Your task to perform on an android device: toggle pop-ups in chrome Image 0: 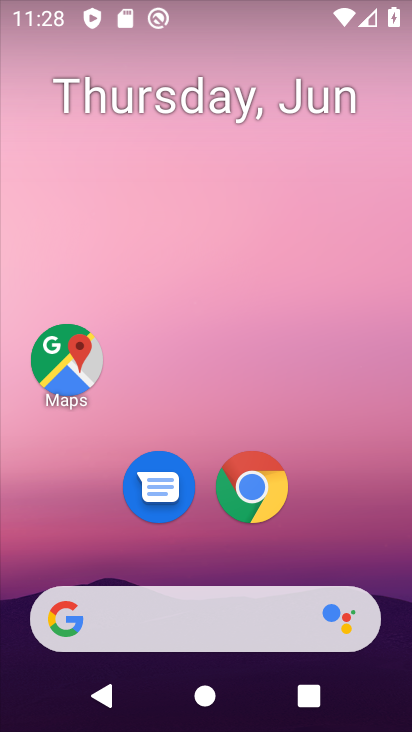
Step 0: drag from (87, 540) to (230, 37)
Your task to perform on an android device: toggle pop-ups in chrome Image 1: 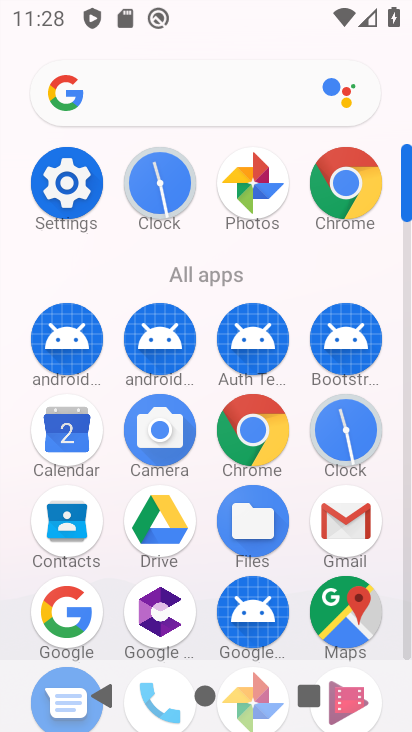
Step 1: drag from (207, 596) to (272, 274)
Your task to perform on an android device: toggle pop-ups in chrome Image 2: 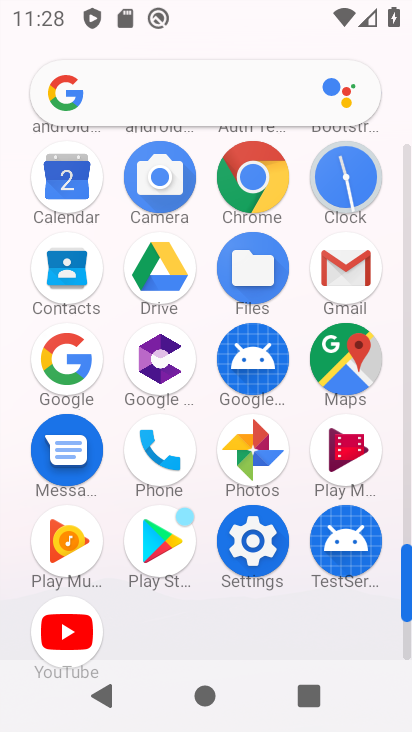
Step 2: click (256, 164)
Your task to perform on an android device: toggle pop-ups in chrome Image 3: 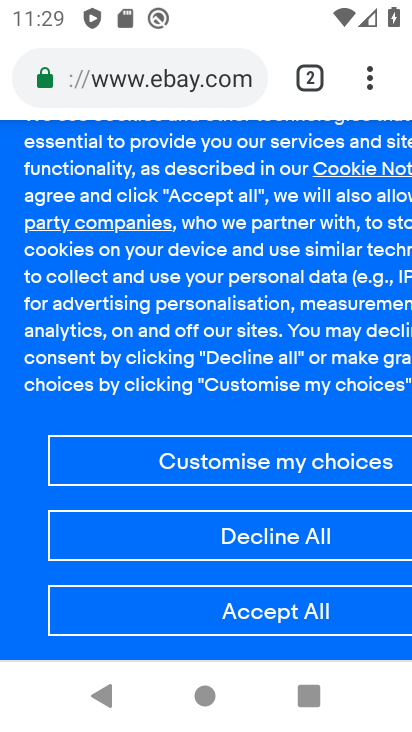
Step 3: drag from (371, 64) to (202, 556)
Your task to perform on an android device: toggle pop-ups in chrome Image 4: 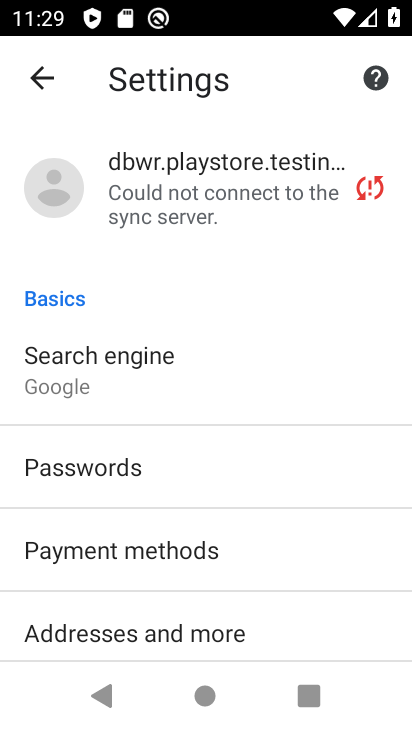
Step 4: drag from (181, 631) to (279, 248)
Your task to perform on an android device: toggle pop-ups in chrome Image 5: 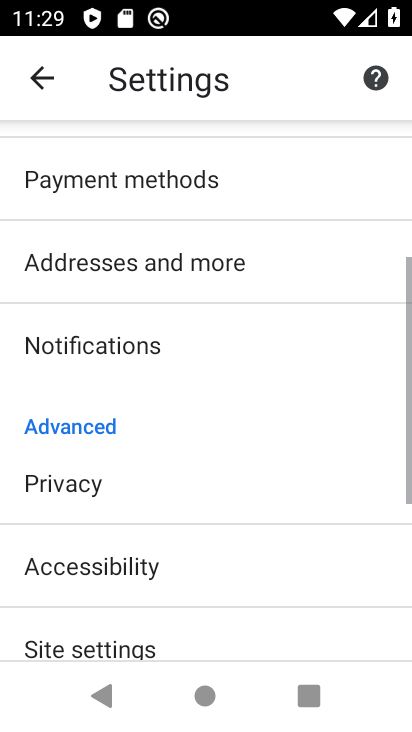
Step 5: drag from (226, 539) to (298, 254)
Your task to perform on an android device: toggle pop-ups in chrome Image 6: 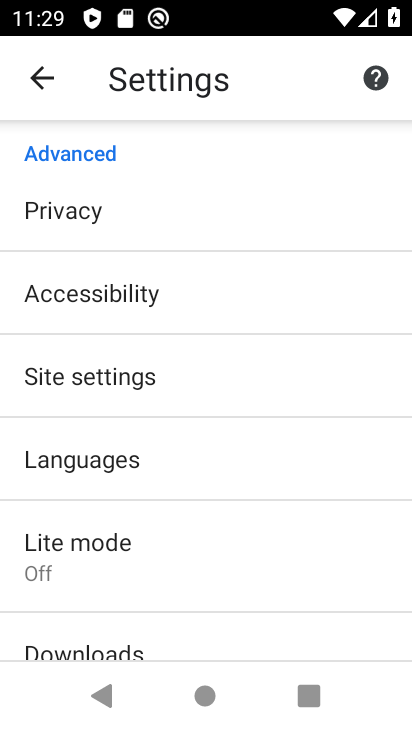
Step 6: click (181, 370)
Your task to perform on an android device: toggle pop-ups in chrome Image 7: 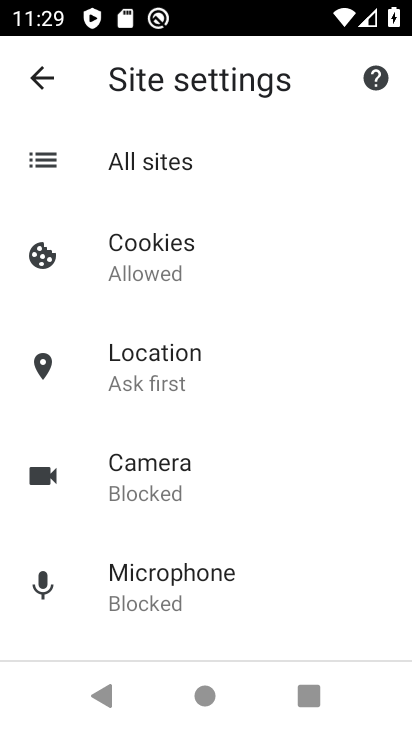
Step 7: drag from (175, 535) to (291, 171)
Your task to perform on an android device: toggle pop-ups in chrome Image 8: 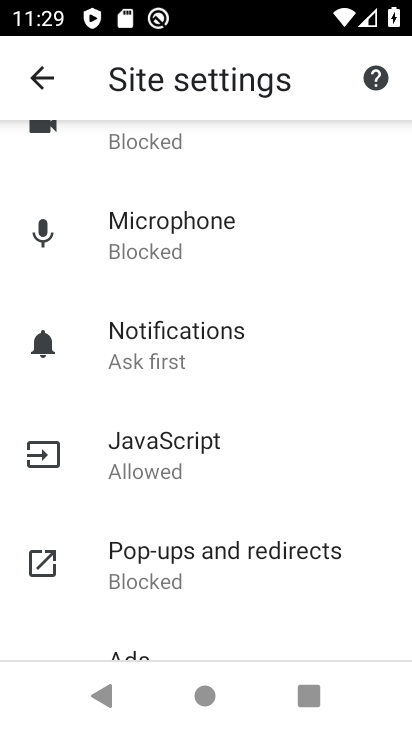
Step 8: drag from (232, 560) to (271, 385)
Your task to perform on an android device: toggle pop-ups in chrome Image 9: 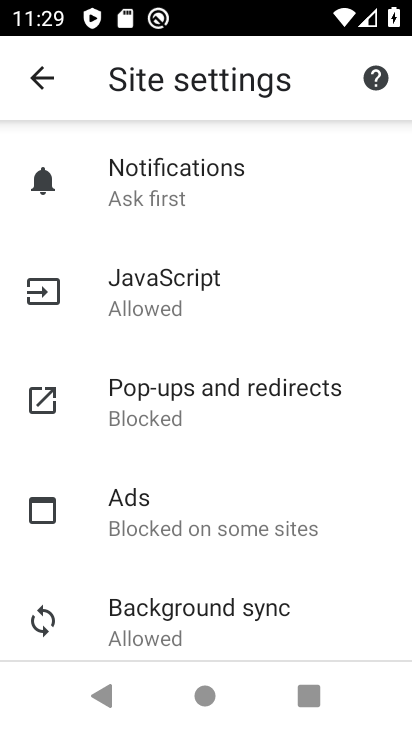
Step 9: click (257, 392)
Your task to perform on an android device: toggle pop-ups in chrome Image 10: 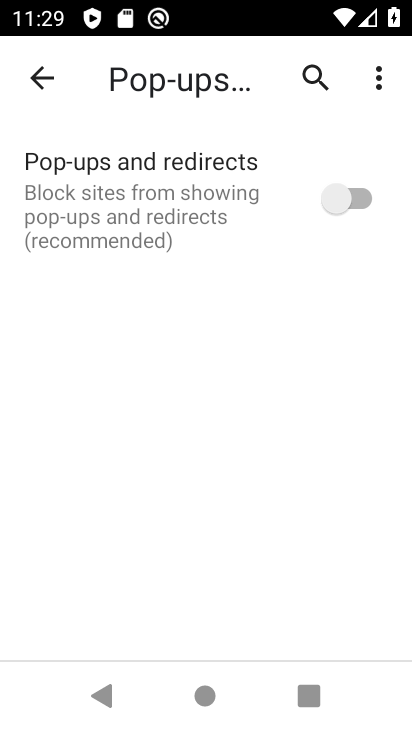
Step 10: click (379, 198)
Your task to perform on an android device: toggle pop-ups in chrome Image 11: 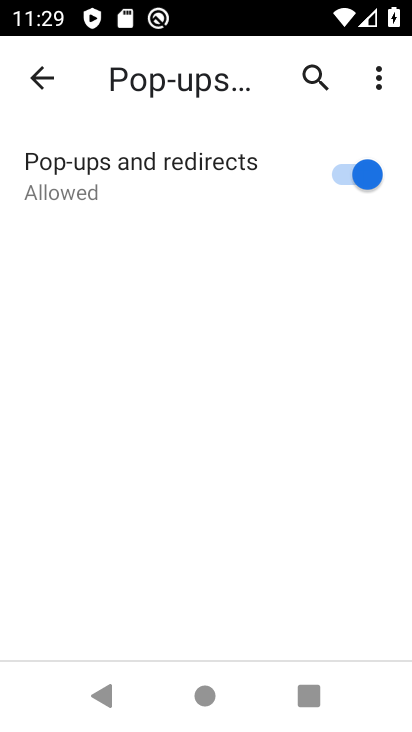
Step 11: task complete